Your task to perform on an android device: Find coffee shops on Maps Image 0: 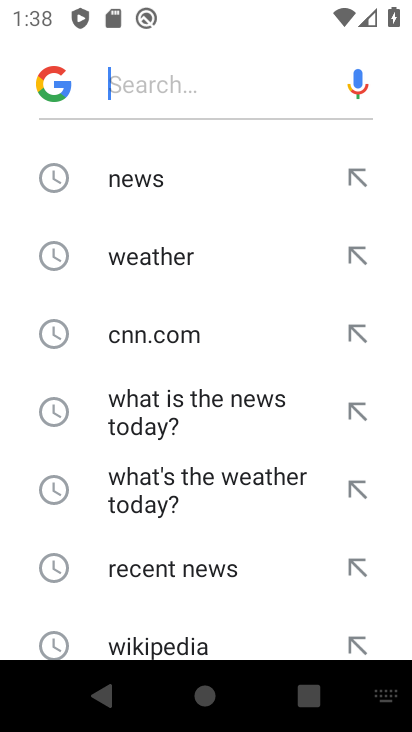
Step 0: press back button
Your task to perform on an android device: Find coffee shops on Maps Image 1: 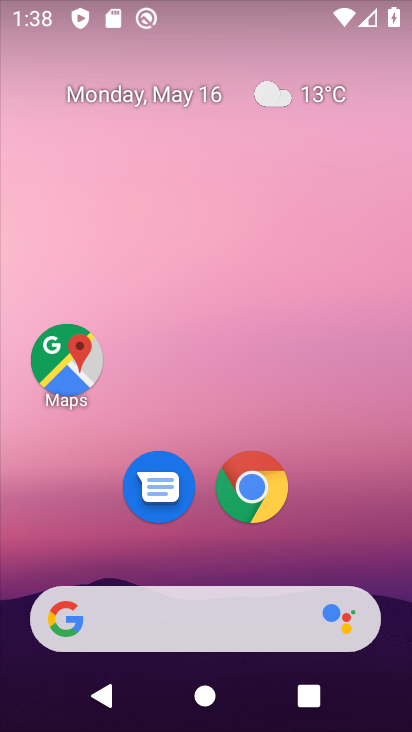
Step 1: click (62, 351)
Your task to perform on an android device: Find coffee shops on Maps Image 2: 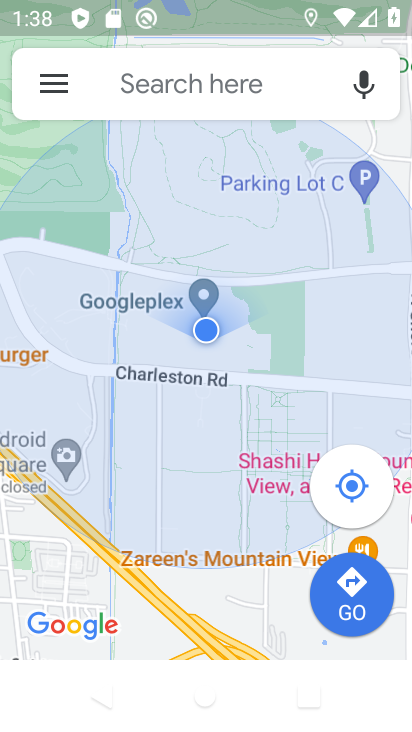
Step 2: click (52, 88)
Your task to perform on an android device: Find coffee shops on Maps Image 3: 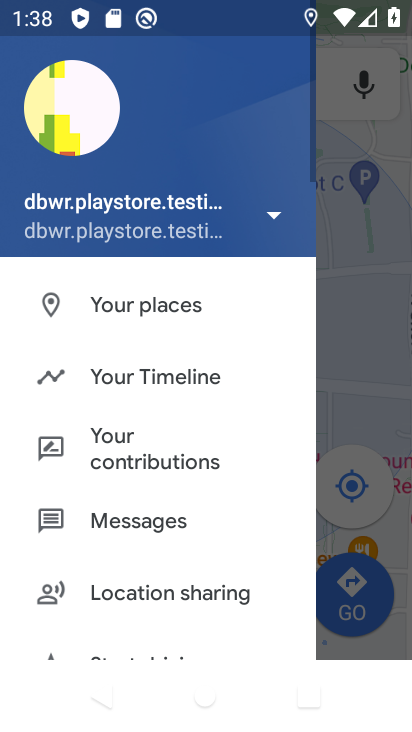
Step 3: click (345, 209)
Your task to perform on an android device: Find coffee shops on Maps Image 4: 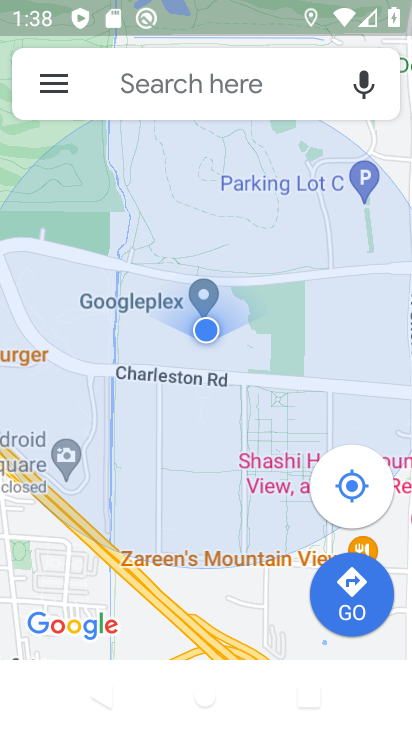
Step 4: click (260, 86)
Your task to perform on an android device: Find coffee shops on Maps Image 5: 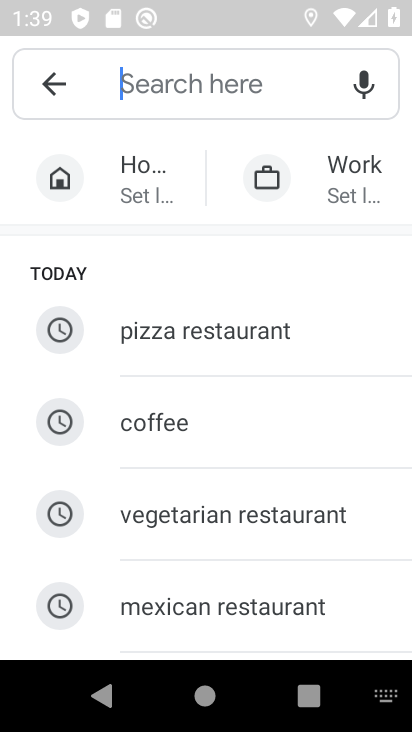
Step 5: click (188, 419)
Your task to perform on an android device: Find coffee shops on Maps Image 6: 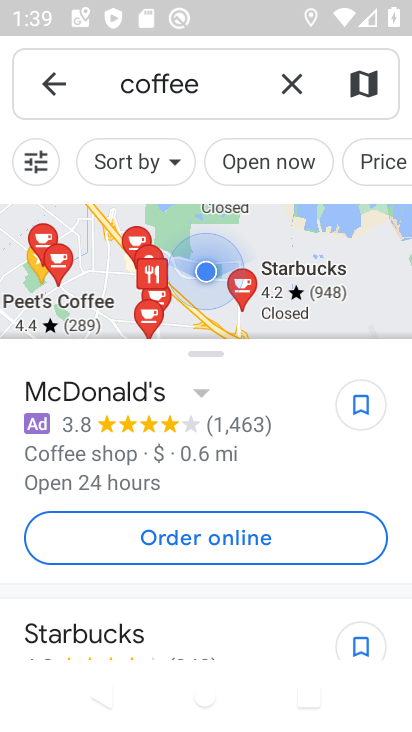
Step 6: task complete